Your task to perform on an android device: Do I have any events tomorrow? Image 0: 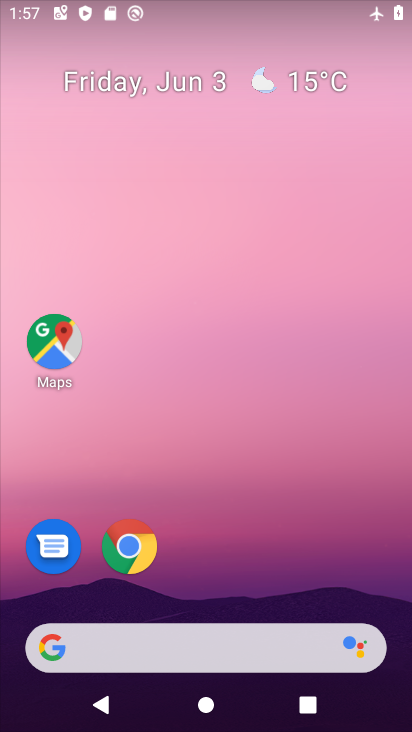
Step 0: drag from (239, 540) to (249, 24)
Your task to perform on an android device: Do I have any events tomorrow? Image 1: 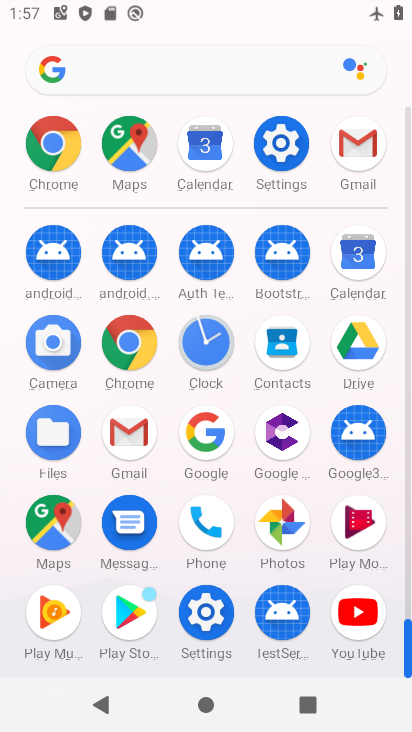
Step 1: click (364, 275)
Your task to perform on an android device: Do I have any events tomorrow? Image 2: 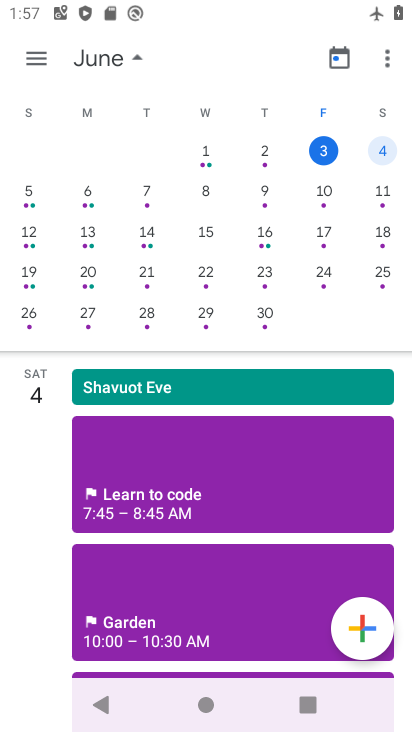
Step 2: click (374, 149)
Your task to perform on an android device: Do I have any events tomorrow? Image 3: 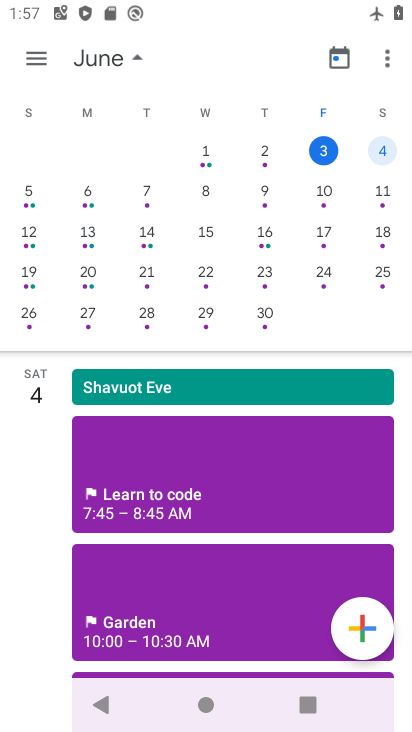
Step 3: task complete